Your task to perform on an android device: star an email in the gmail app Image 0: 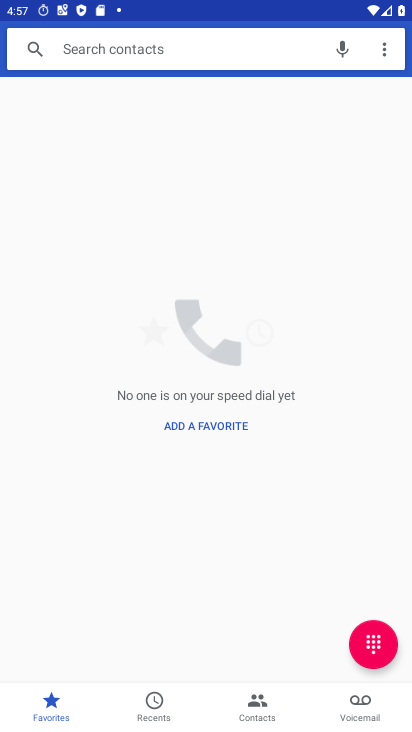
Step 0: press home button
Your task to perform on an android device: star an email in the gmail app Image 1: 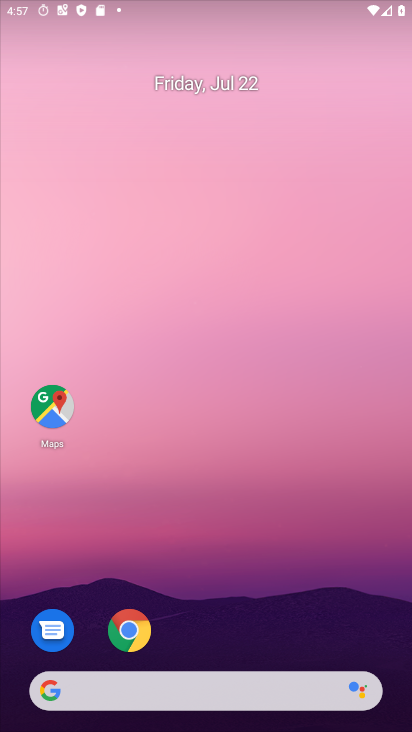
Step 1: drag from (201, 673) to (175, 22)
Your task to perform on an android device: star an email in the gmail app Image 2: 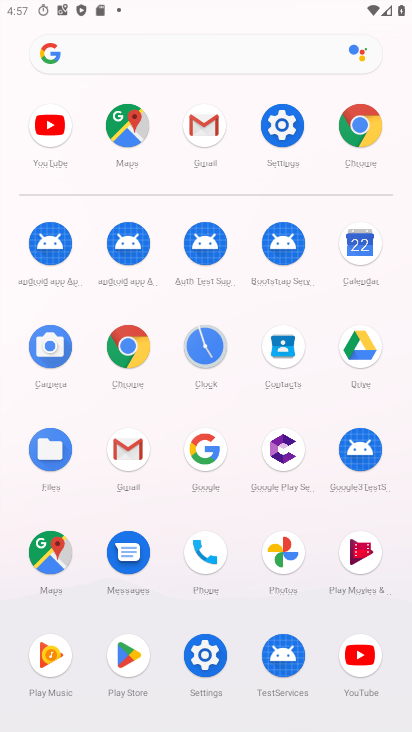
Step 2: click (123, 446)
Your task to perform on an android device: star an email in the gmail app Image 3: 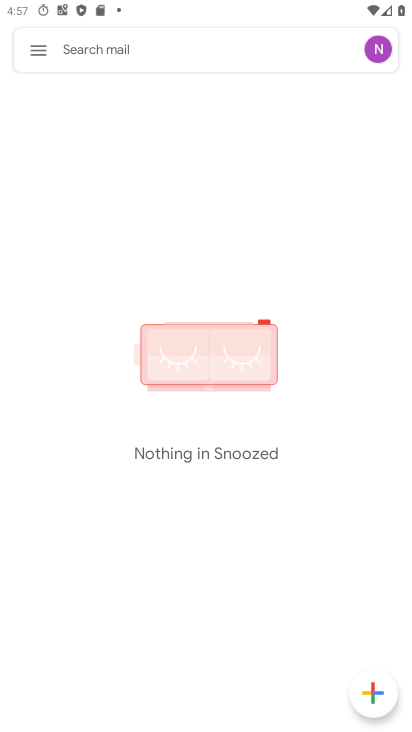
Step 3: click (41, 50)
Your task to perform on an android device: star an email in the gmail app Image 4: 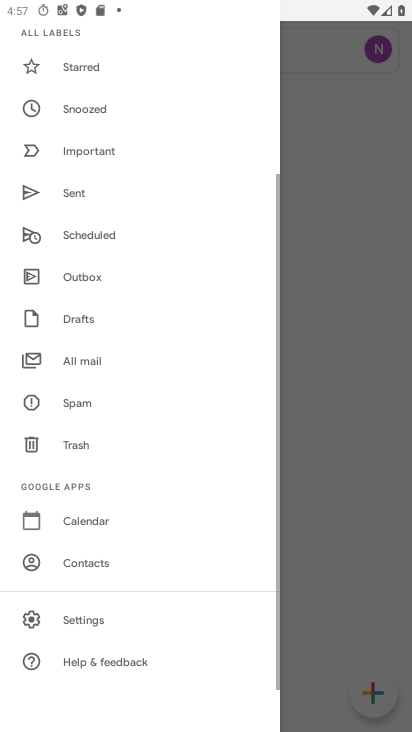
Step 4: click (74, 70)
Your task to perform on an android device: star an email in the gmail app Image 5: 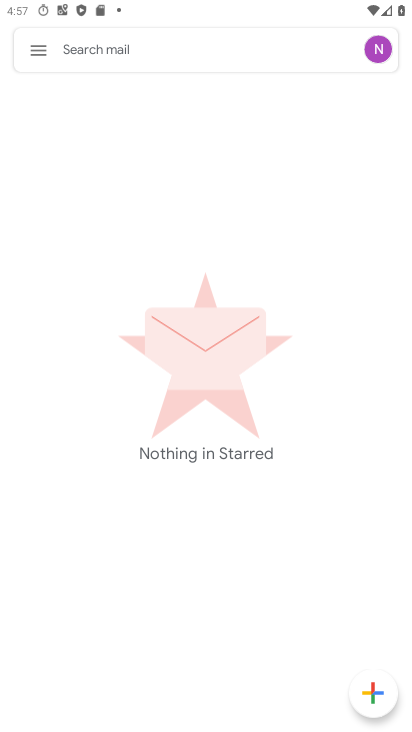
Step 5: task complete